Your task to perform on an android device: turn pop-ups off in chrome Image 0: 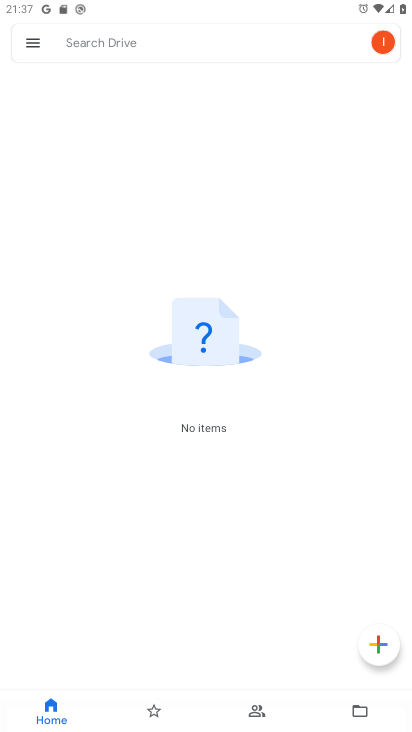
Step 0: press home button
Your task to perform on an android device: turn pop-ups off in chrome Image 1: 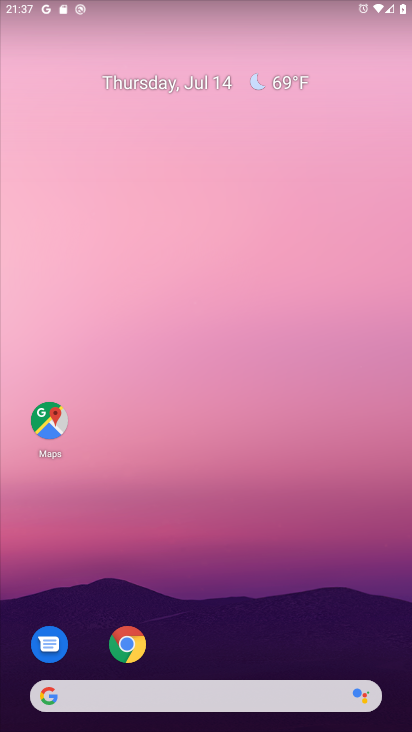
Step 1: click (137, 641)
Your task to perform on an android device: turn pop-ups off in chrome Image 2: 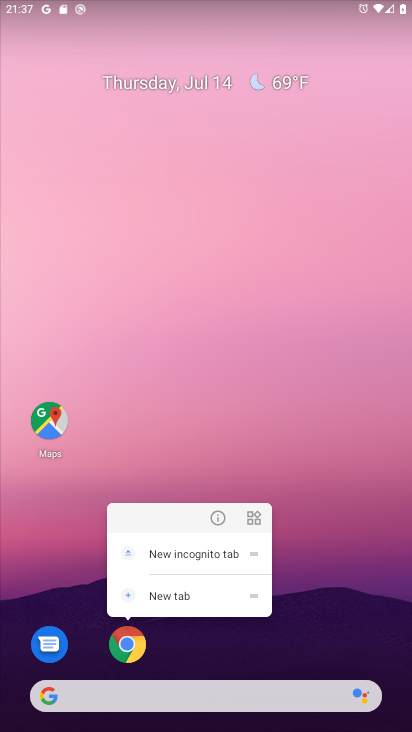
Step 2: click (219, 511)
Your task to perform on an android device: turn pop-ups off in chrome Image 3: 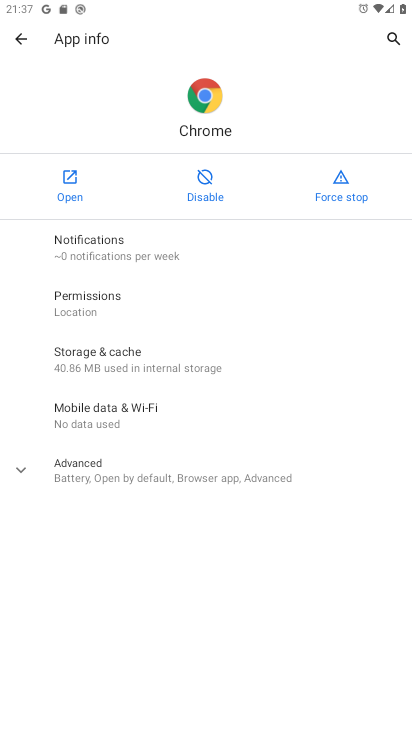
Step 3: click (127, 450)
Your task to perform on an android device: turn pop-ups off in chrome Image 4: 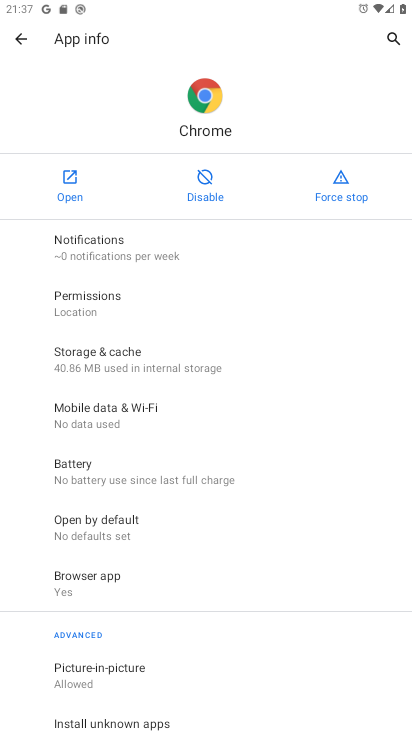
Step 4: click (155, 680)
Your task to perform on an android device: turn pop-ups off in chrome Image 5: 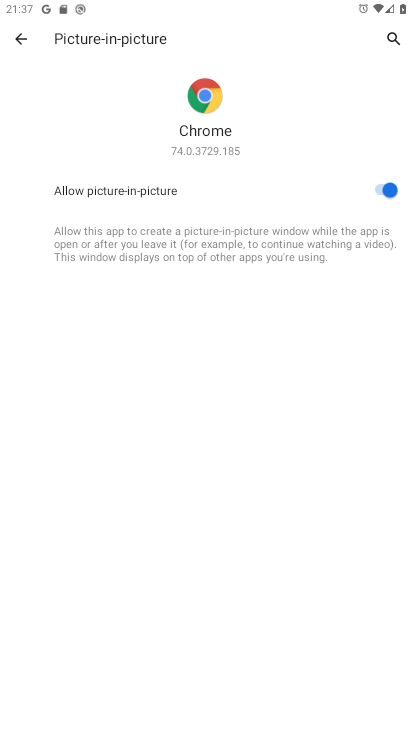
Step 5: click (375, 195)
Your task to perform on an android device: turn pop-ups off in chrome Image 6: 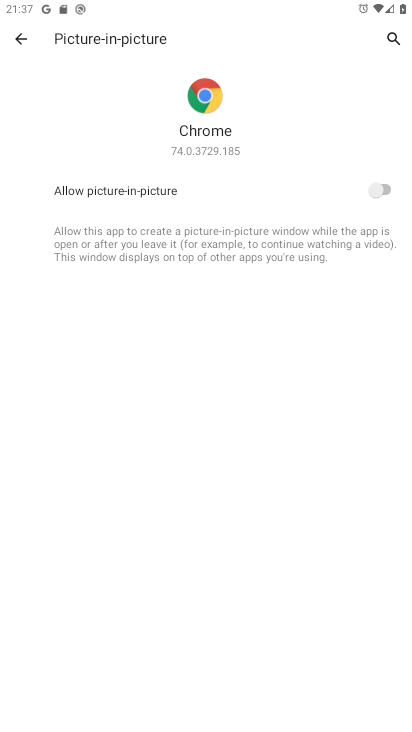
Step 6: task complete